Your task to perform on an android device: change the clock display to show seconds Image 0: 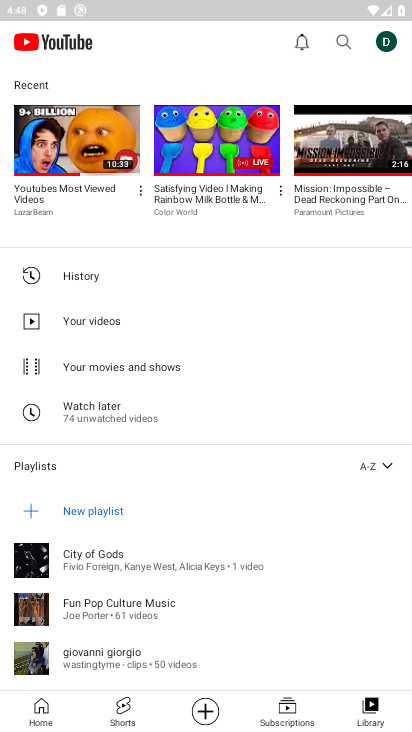
Step 0: press home button
Your task to perform on an android device: change the clock display to show seconds Image 1: 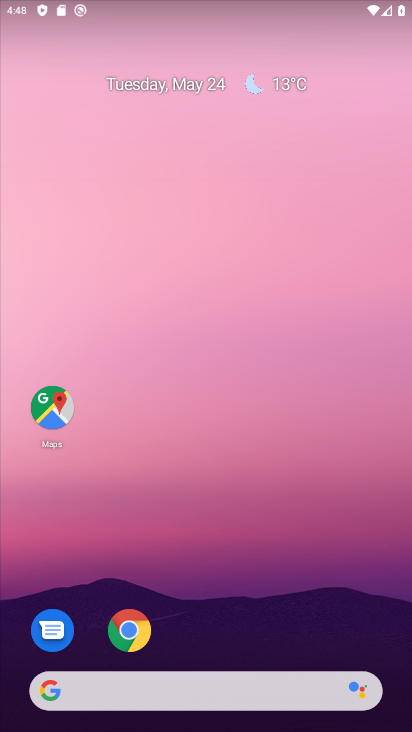
Step 1: drag from (185, 448) to (241, 2)
Your task to perform on an android device: change the clock display to show seconds Image 2: 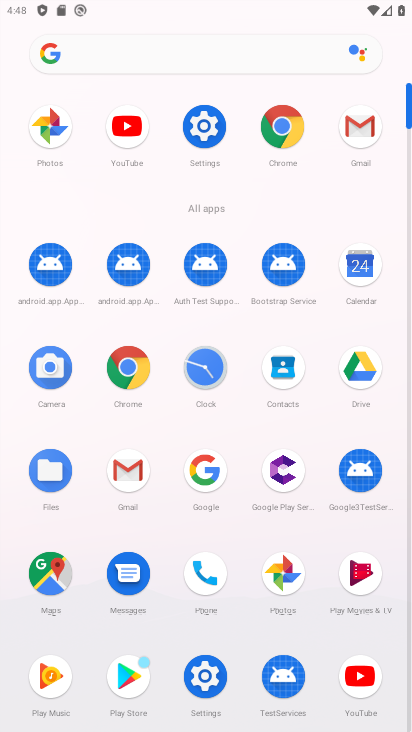
Step 2: click (203, 134)
Your task to perform on an android device: change the clock display to show seconds Image 3: 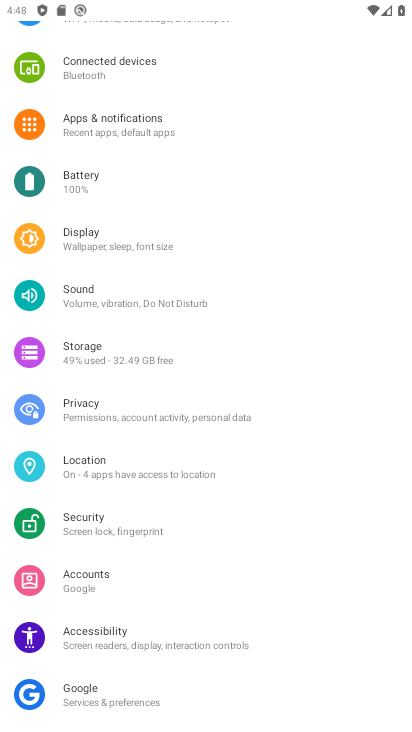
Step 3: press back button
Your task to perform on an android device: change the clock display to show seconds Image 4: 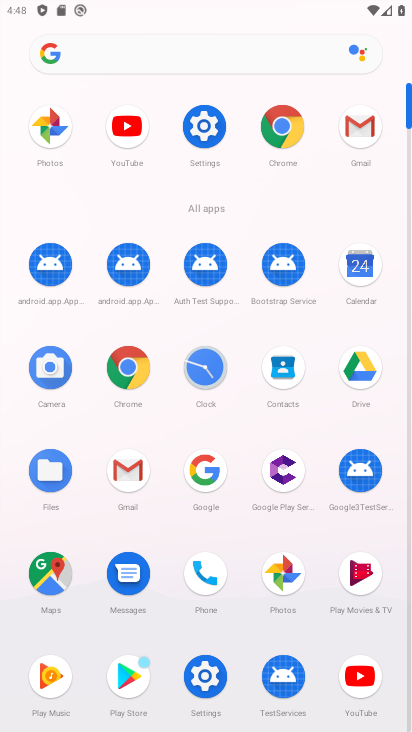
Step 4: click (188, 367)
Your task to perform on an android device: change the clock display to show seconds Image 5: 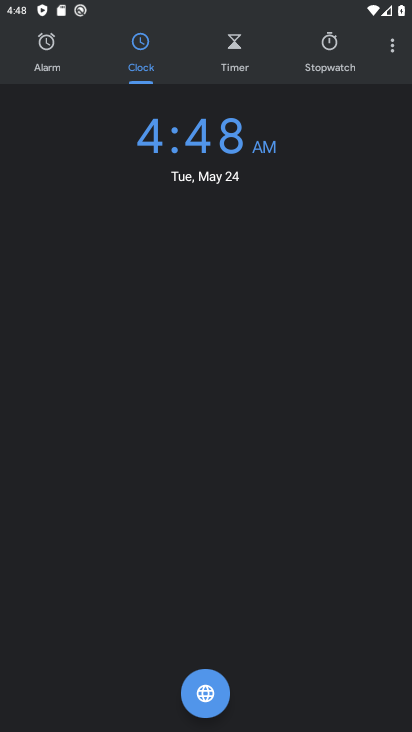
Step 5: click (394, 52)
Your task to perform on an android device: change the clock display to show seconds Image 6: 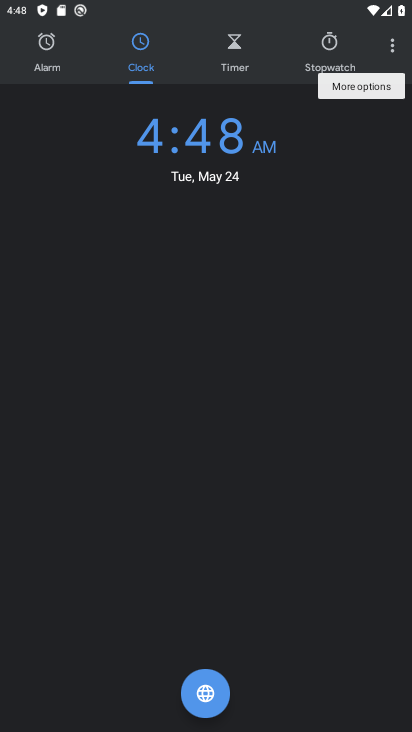
Step 6: click (394, 52)
Your task to perform on an android device: change the clock display to show seconds Image 7: 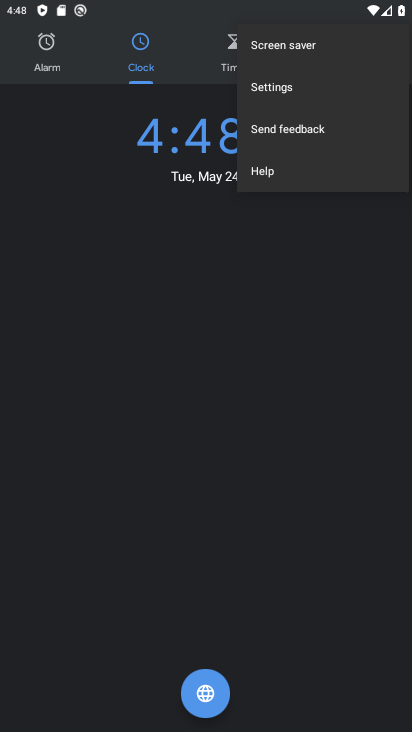
Step 7: click (306, 87)
Your task to perform on an android device: change the clock display to show seconds Image 8: 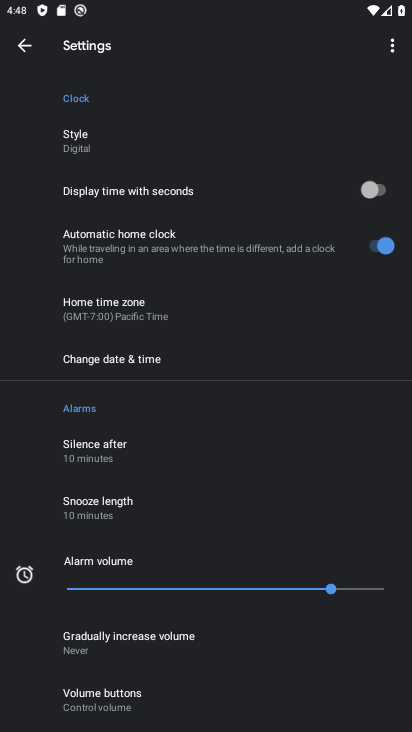
Step 8: click (387, 197)
Your task to perform on an android device: change the clock display to show seconds Image 9: 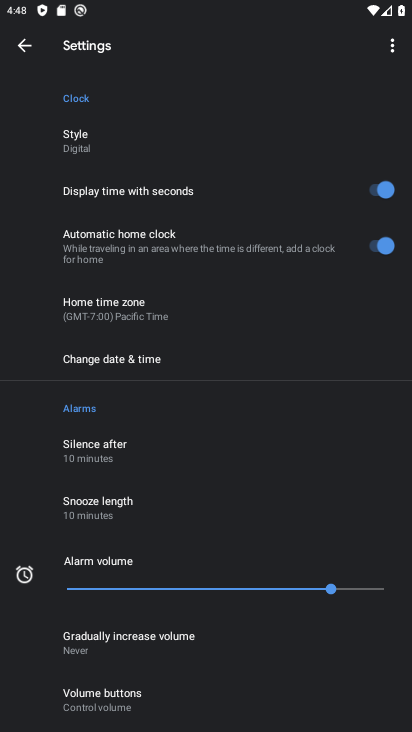
Step 9: task complete